Your task to perform on an android device: turn vacation reply on in the gmail app Image 0: 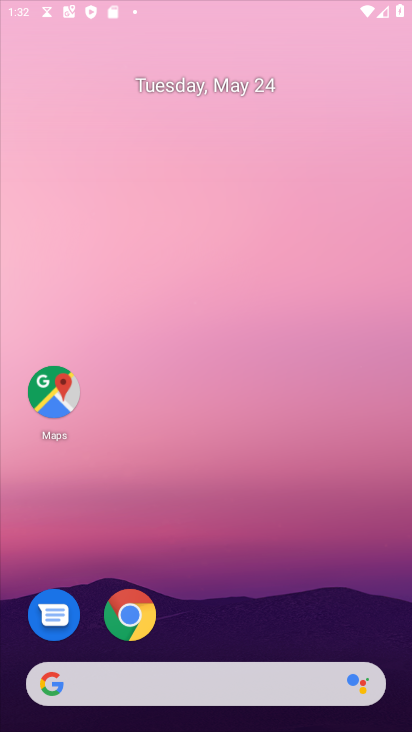
Step 0: press home button
Your task to perform on an android device: turn vacation reply on in the gmail app Image 1: 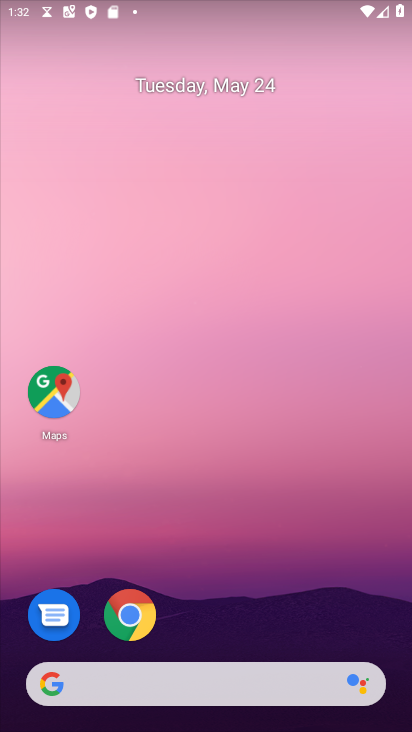
Step 1: drag from (212, 644) to (217, 67)
Your task to perform on an android device: turn vacation reply on in the gmail app Image 2: 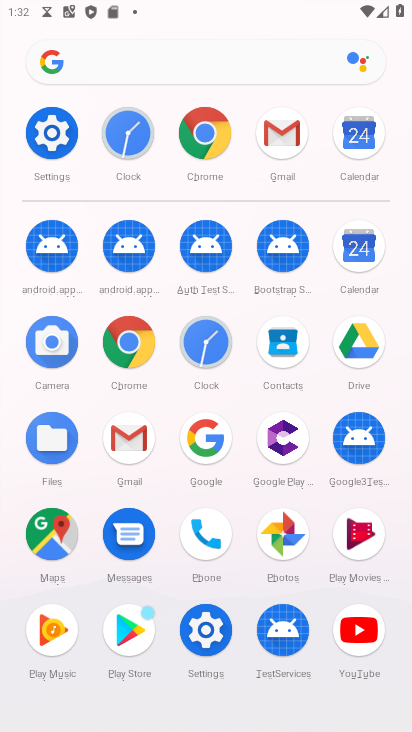
Step 2: click (281, 125)
Your task to perform on an android device: turn vacation reply on in the gmail app Image 3: 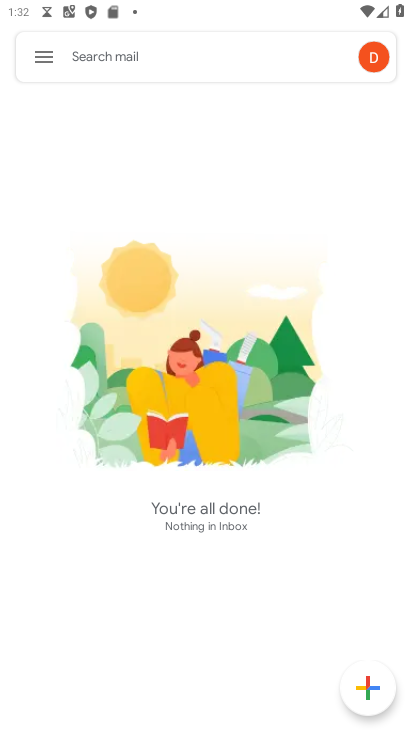
Step 3: click (38, 54)
Your task to perform on an android device: turn vacation reply on in the gmail app Image 4: 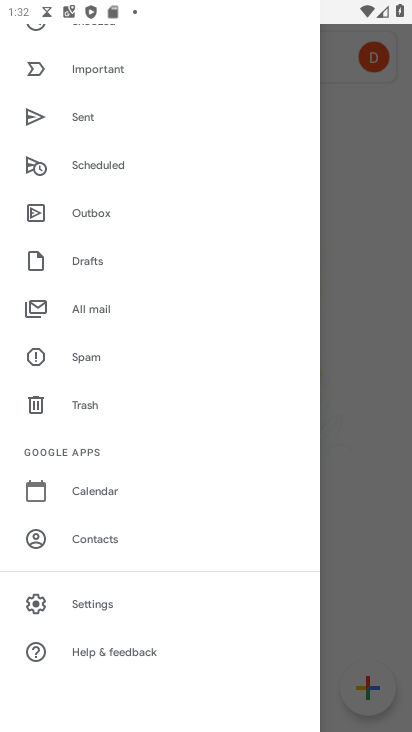
Step 4: click (114, 599)
Your task to perform on an android device: turn vacation reply on in the gmail app Image 5: 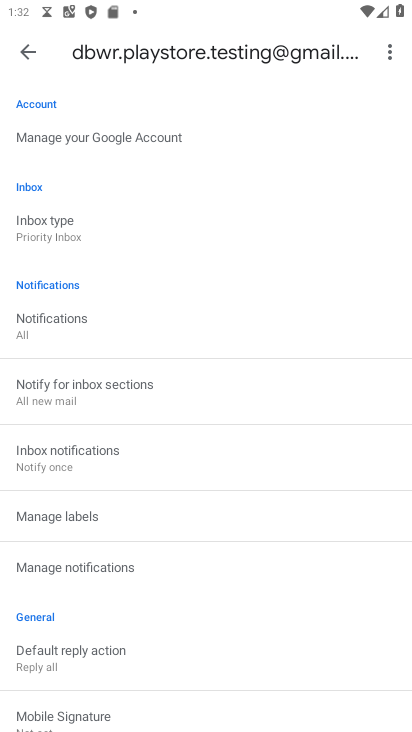
Step 5: drag from (141, 671) to (130, 126)
Your task to perform on an android device: turn vacation reply on in the gmail app Image 6: 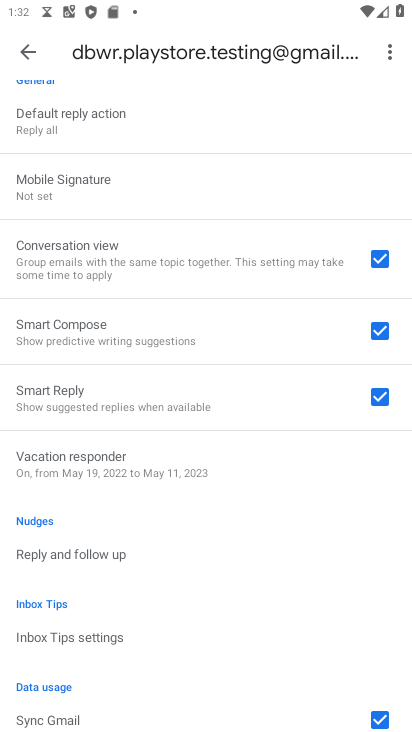
Step 6: click (156, 460)
Your task to perform on an android device: turn vacation reply on in the gmail app Image 7: 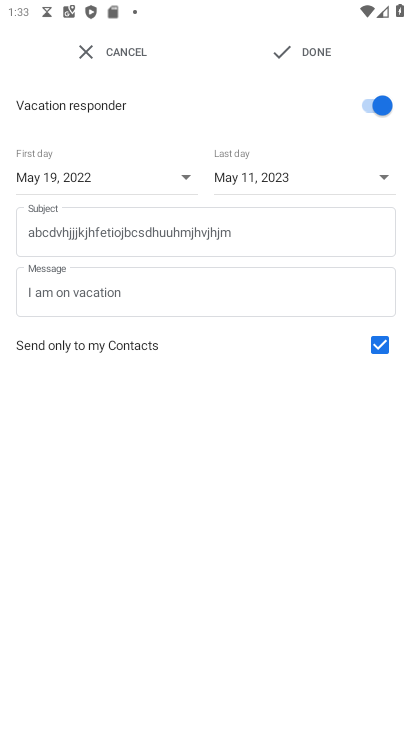
Step 7: task complete